Your task to perform on an android device: Go to Yahoo.com Image 0: 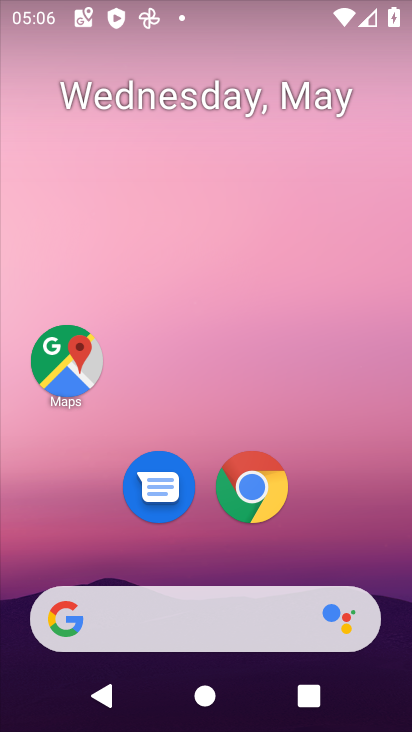
Step 0: click (272, 497)
Your task to perform on an android device: Go to Yahoo.com Image 1: 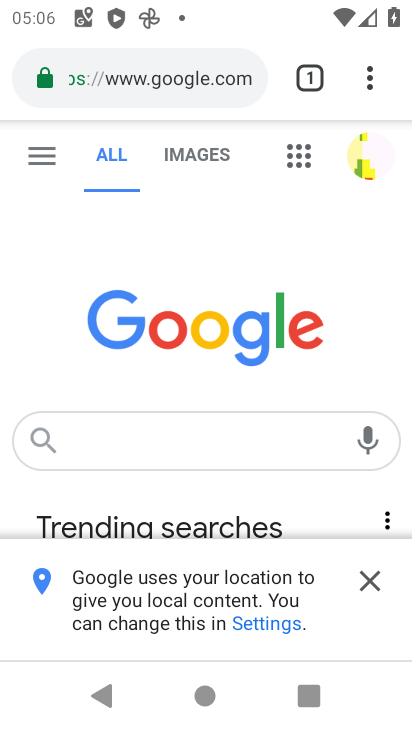
Step 1: click (194, 98)
Your task to perform on an android device: Go to Yahoo.com Image 2: 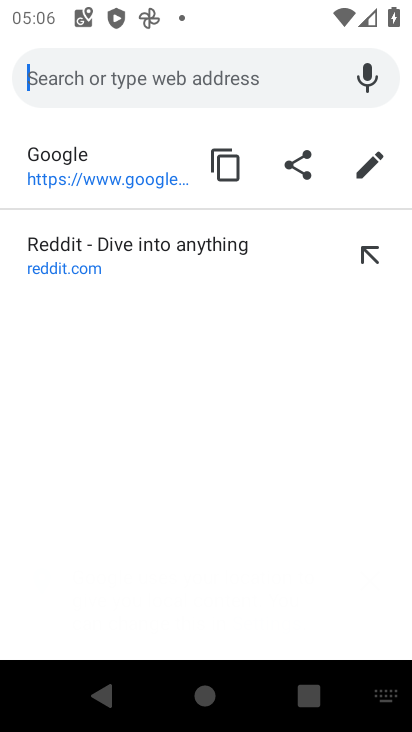
Step 2: type "yahoo.com"
Your task to perform on an android device: Go to Yahoo.com Image 3: 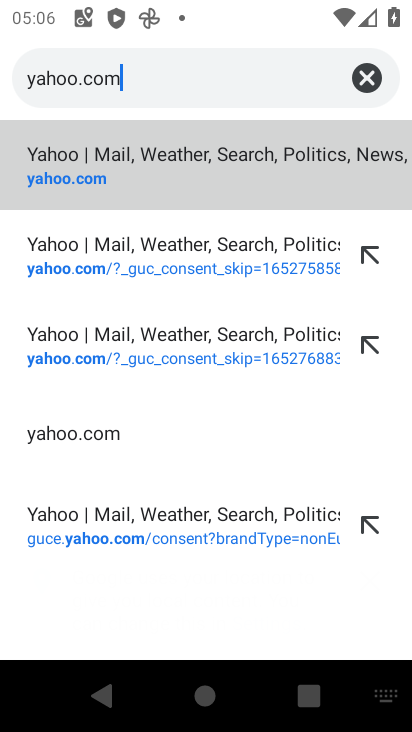
Step 3: click (246, 159)
Your task to perform on an android device: Go to Yahoo.com Image 4: 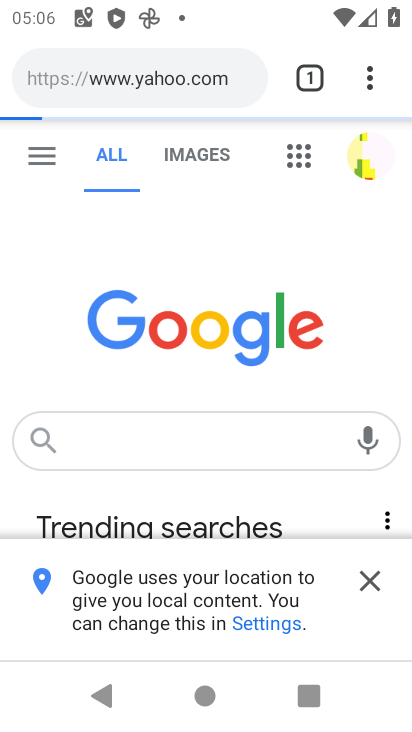
Step 4: task complete